Your task to perform on an android device: toggle notifications settings in the gmail app Image 0: 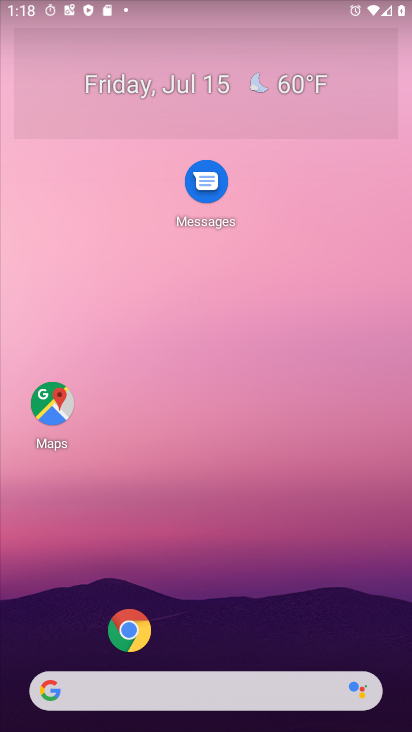
Step 0: drag from (230, 269) to (275, 175)
Your task to perform on an android device: toggle notifications settings in the gmail app Image 1: 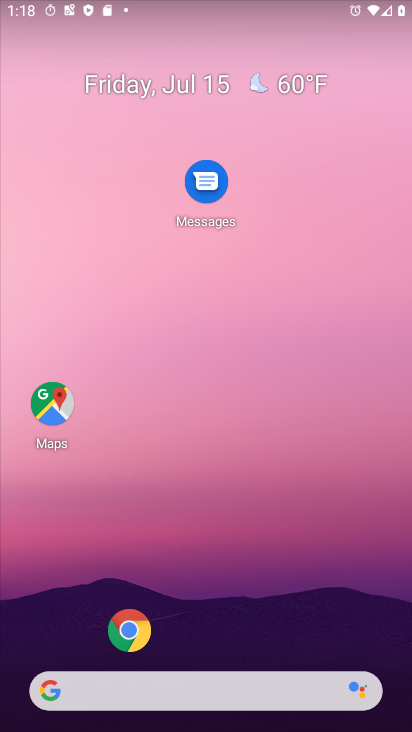
Step 1: drag from (6, 695) to (204, 210)
Your task to perform on an android device: toggle notifications settings in the gmail app Image 2: 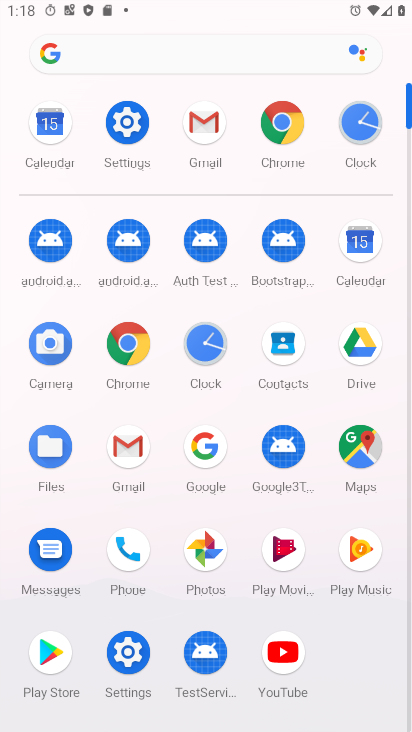
Step 2: click (140, 457)
Your task to perform on an android device: toggle notifications settings in the gmail app Image 3: 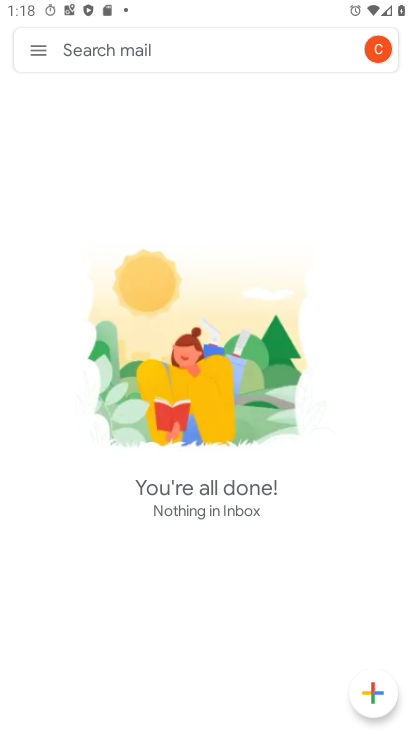
Step 3: click (32, 46)
Your task to perform on an android device: toggle notifications settings in the gmail app Image 4: 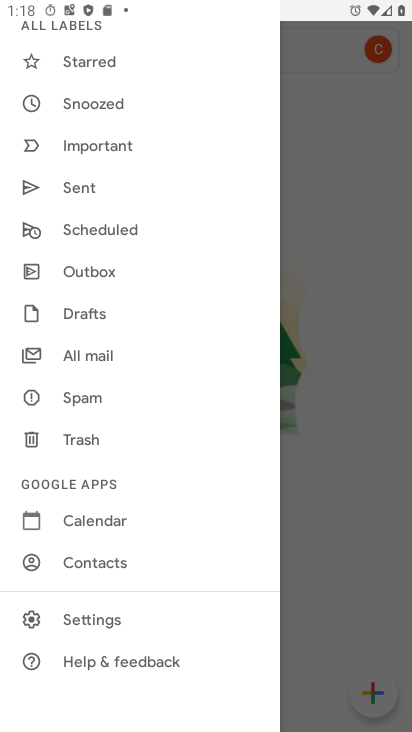
Step 4: click (89, 608)
Your task to perform on an android device: toggle notifications settings in the gmail app Image 5: 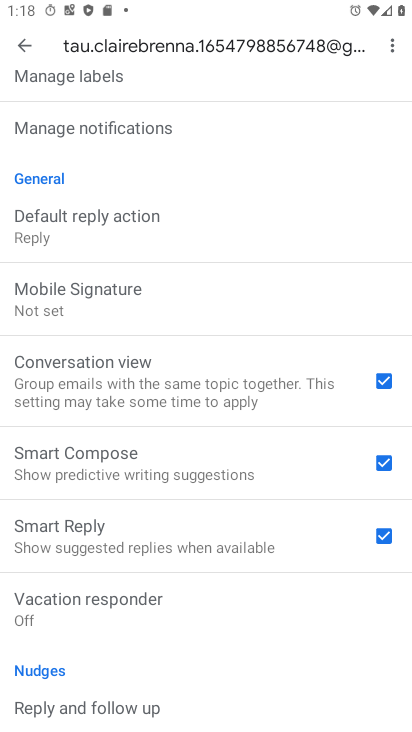
Step 5: click (71, 128)
Your task to perform on an android device: toggle notifications settings in the gmail app Image 6: 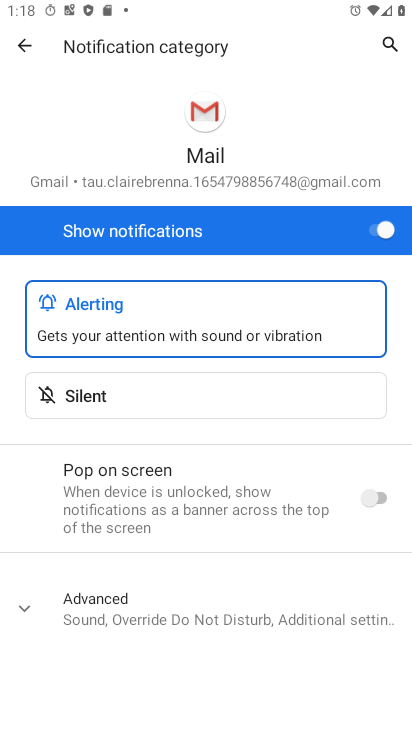
Step 6: task complete